Your task to perform on an android device: Show me popular videos on Youtube Image 0: 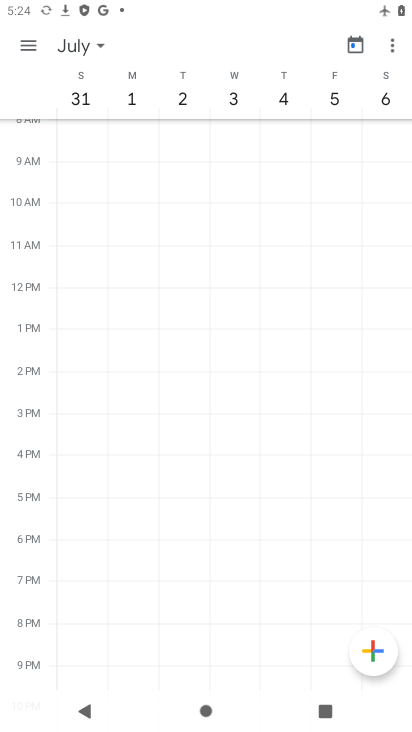
Step 0: press home button
Your task to perform on an android device: Show me popular videos on Youtube Image 1: 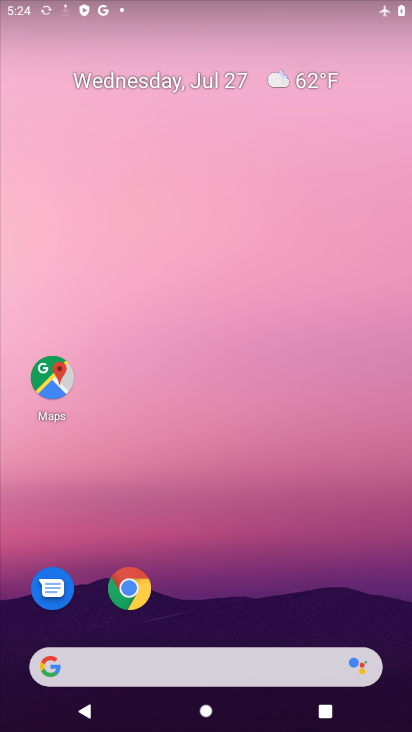
Step 1: drag from (224, 565) to (239, 228)
Your task to perform on an android device: Show me popular videos on Youtube Image 2: 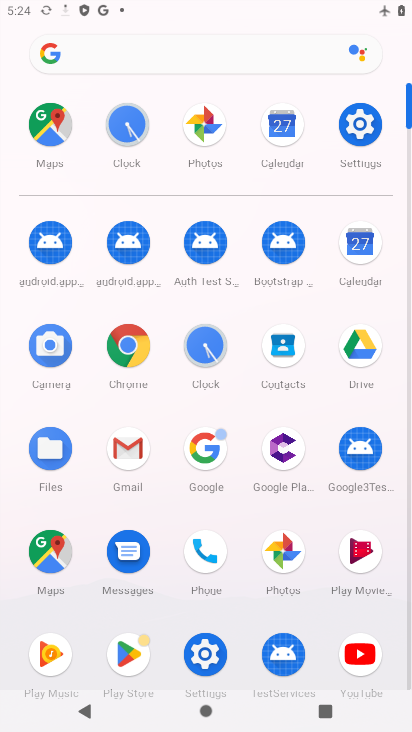
Step 2: click (365, 656)
Your task to perform on an android device: Show me popular videos on Youtube Image 3: 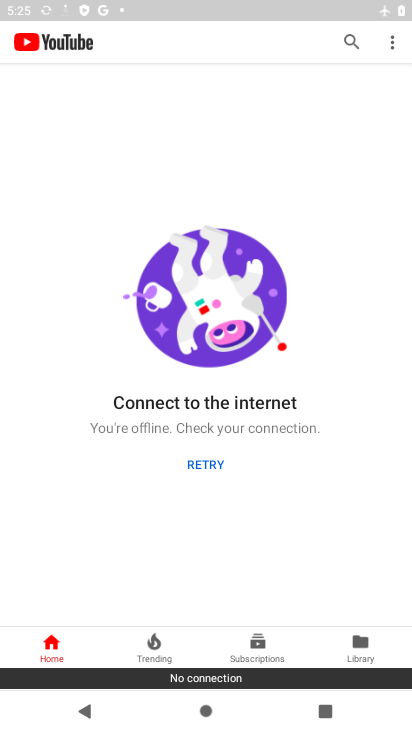
Step 3: task complete